Your task to perform on an android device: Open privacy settings Image 0: 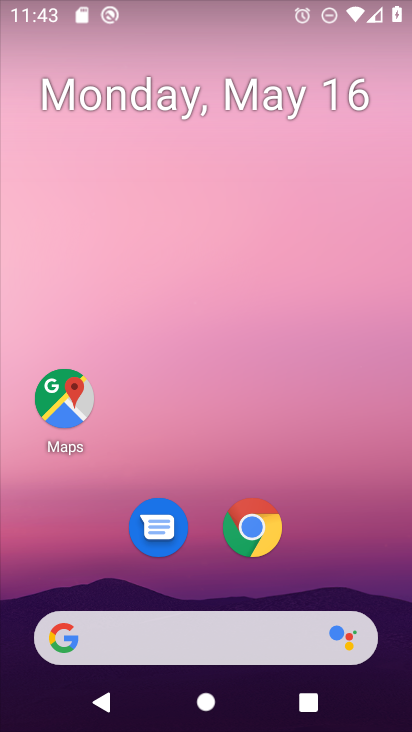
Step 0: drag from (345, 583) to (198, 2)
Your task to perform on an android device: Open privacy settings Image 1: 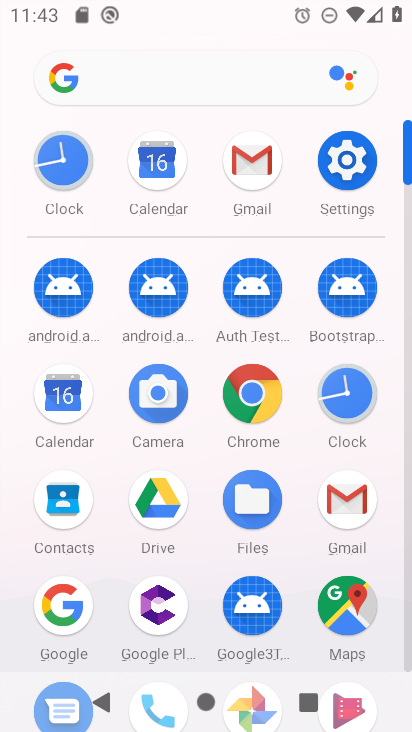
Step 1: click (349, 172)
Your task to perform on an android device: Open privacy settings Image 2: 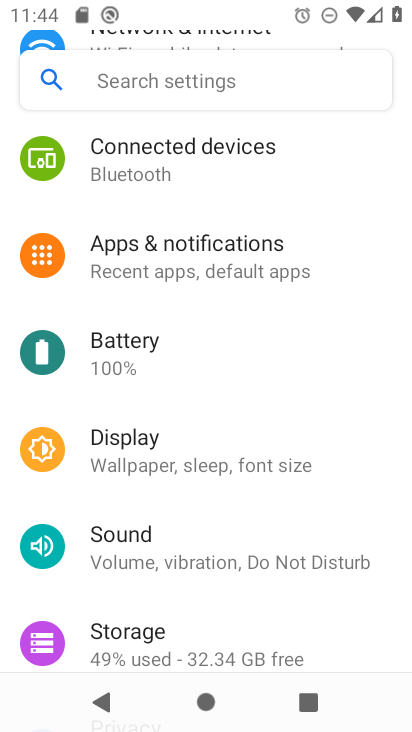
Step 2: drag from (244, 376) to (246, 176)
Your task to perform on an android device: Open privacy settings Image 3: 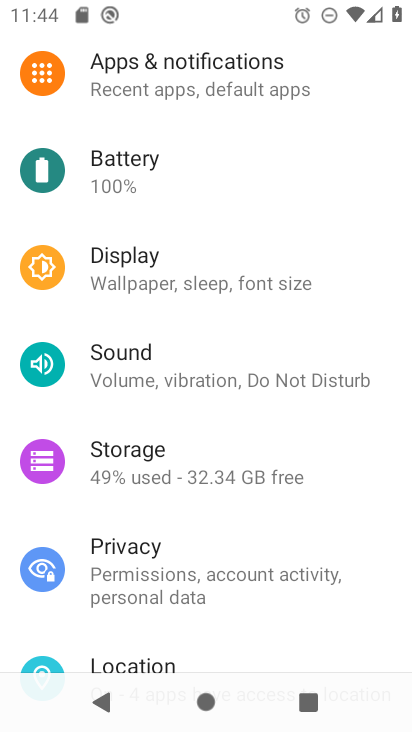
Step 3: click (107, 557)
Your task to perform on an android device: Open privacy settings Image 4: 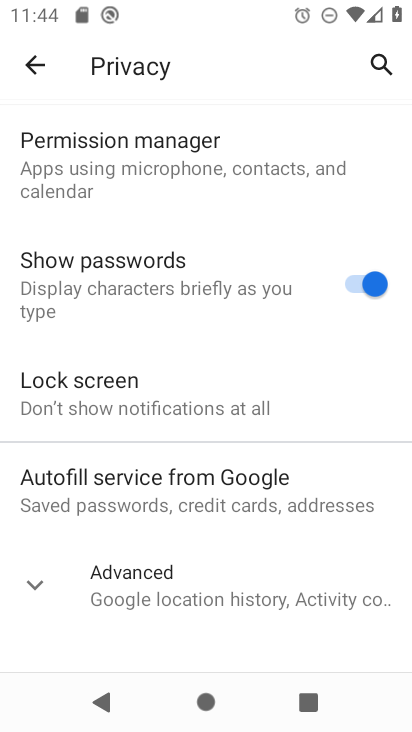
Step 4: task complete